Your task to perform on an android device: Search for the best websites on the internet Image 0: 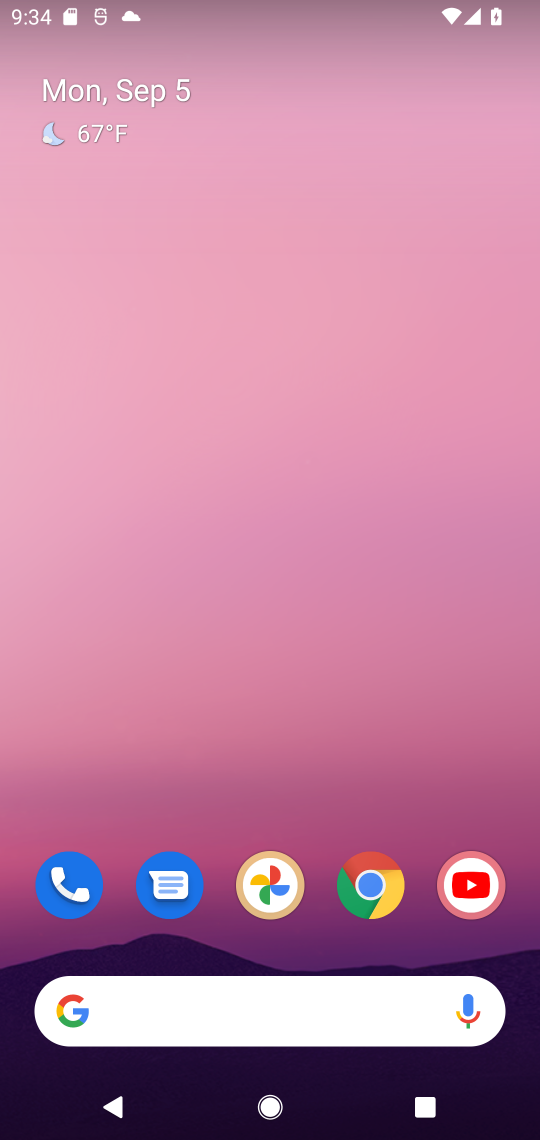
Step 0: click (367, 883)
Your task to perform on an android device: Search for the best websites on the internet Image 1: 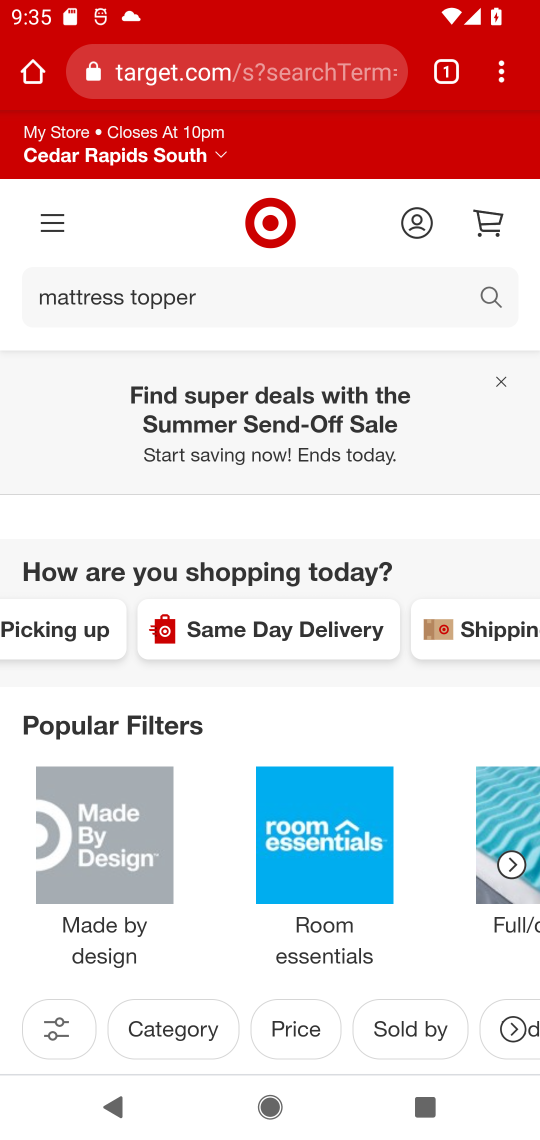
Step 1: click (496, 78)
Your task to perform on an android device: Search for the best websites on the internet Image 2: 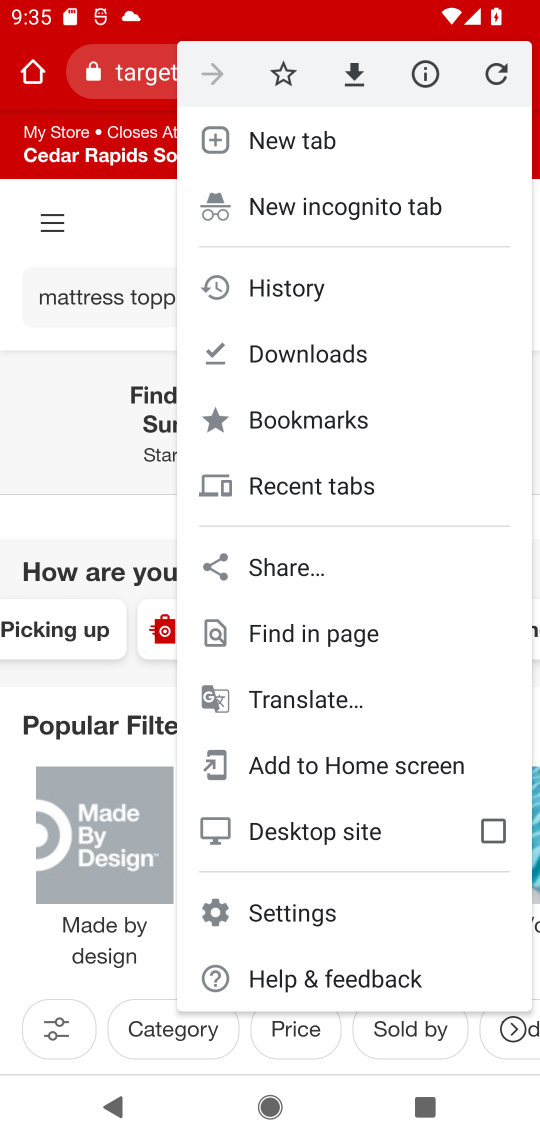
Step 2: click (298, 140)
Your task to perform on an android device: Search for the best websites on the internet Image 3: 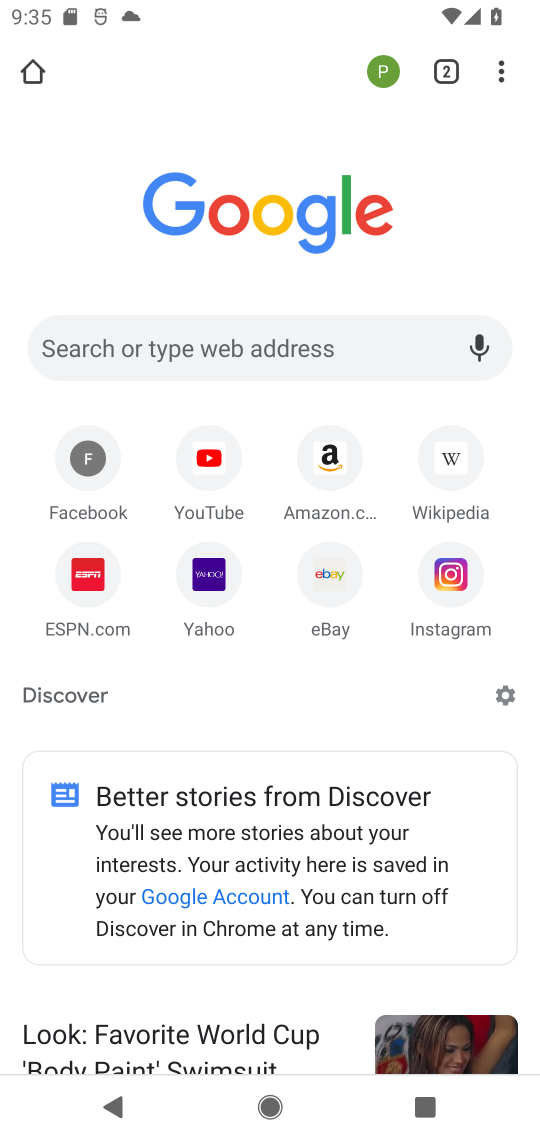
Step 3: click (239, 352)
Your task to perform on an android device: Search for the best websites on the internet Image 4: 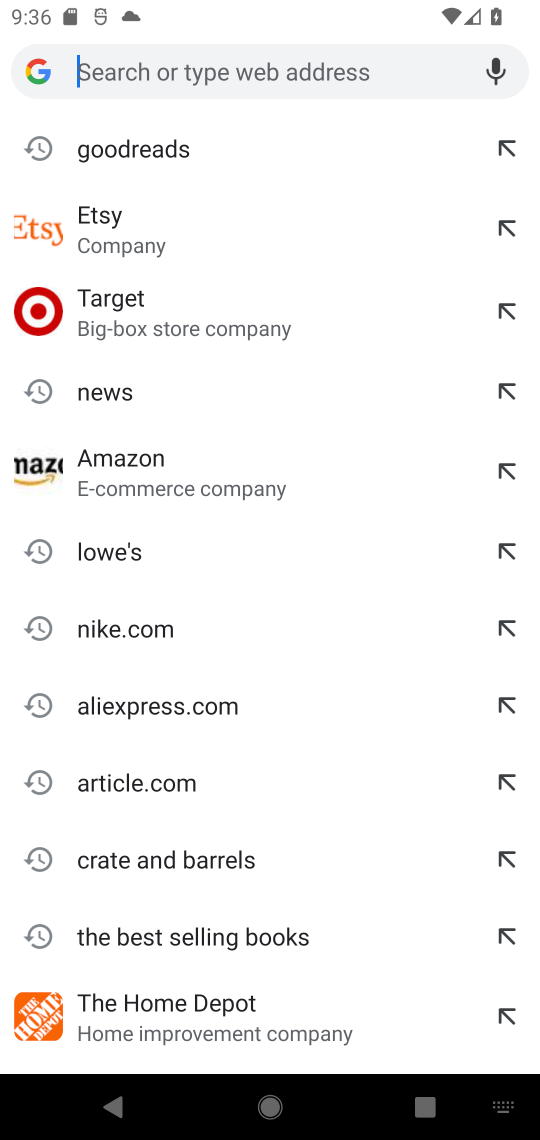
Step 4: type "best websites on the internet"
Your task to perform on an android device: Search for the best websites on the internet Image 5: 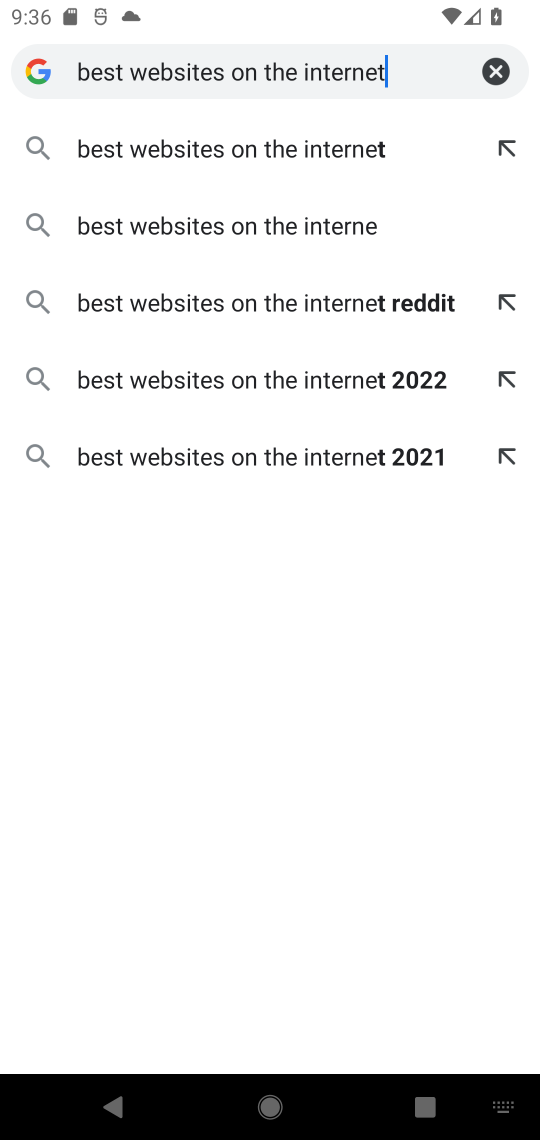
Step 5: type ""
Your task to perform on an android device: Search for the best websites on the internet Image 6: 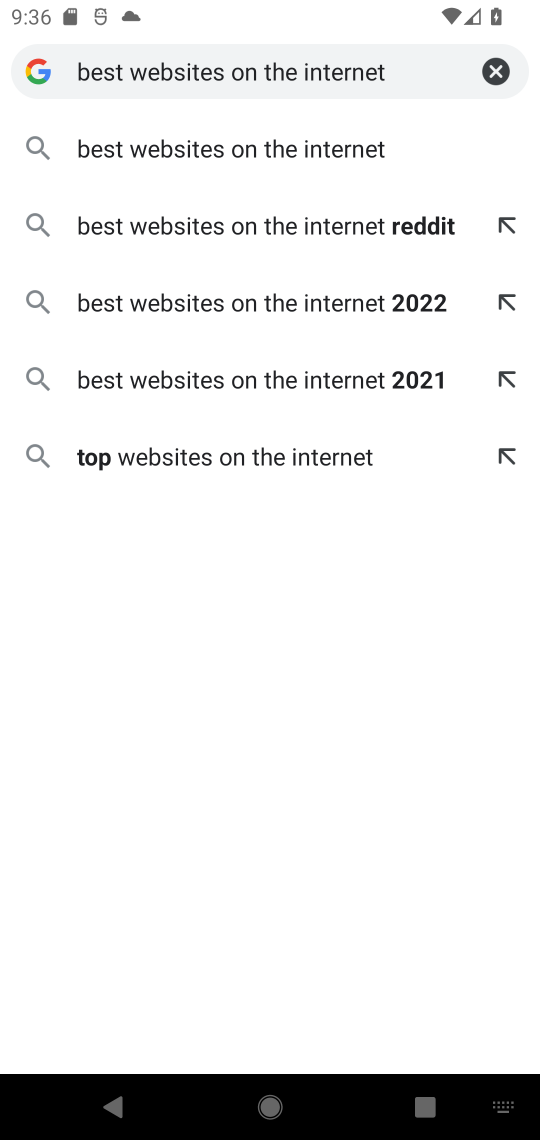
Step 6: click (357, 146)
Your task to perform on an android device: Search for the best websites on the internet Image 7: 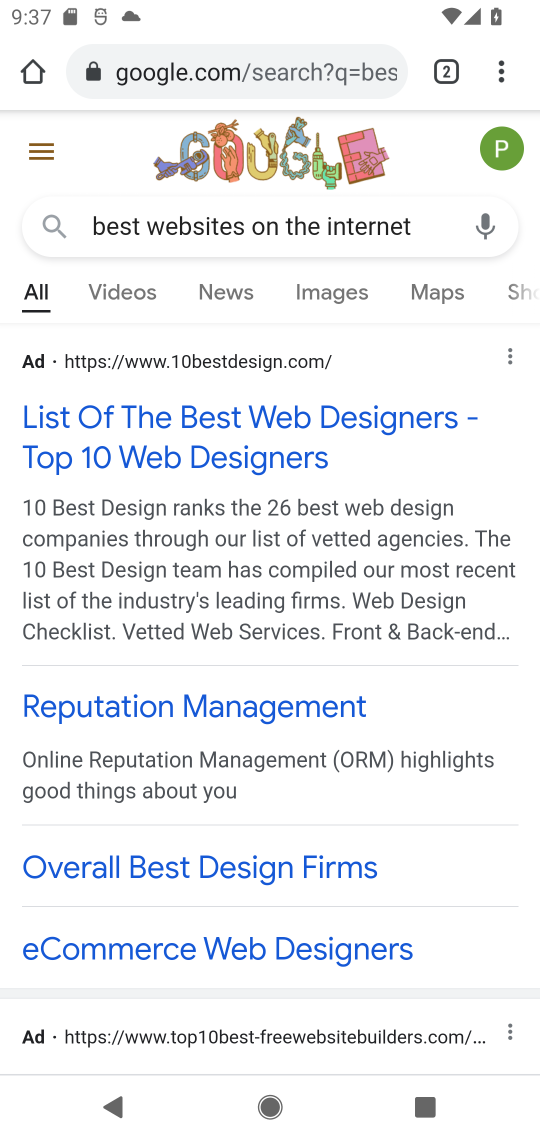
Step 7: task complete